Your task to perform on an android device: change alarm snooze length Image 0: 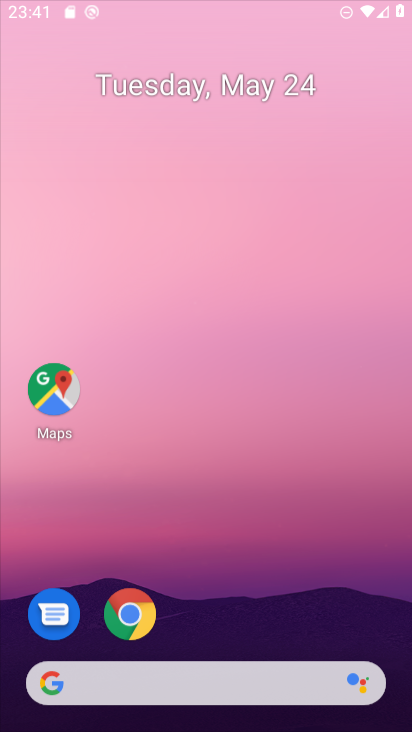
Step 0: press home button
Your task to perform on an android device: change alarm snooze length Image 1: 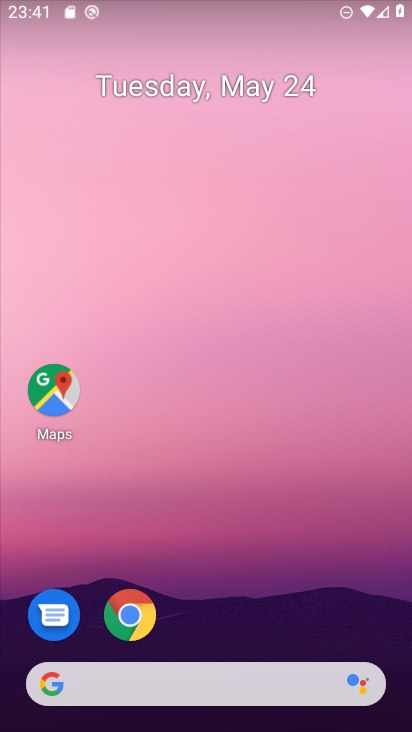
Step 1: drag from (257, 714) to (273, 123)
Your task to perform on an android device: change alarm snooze length Image 2: 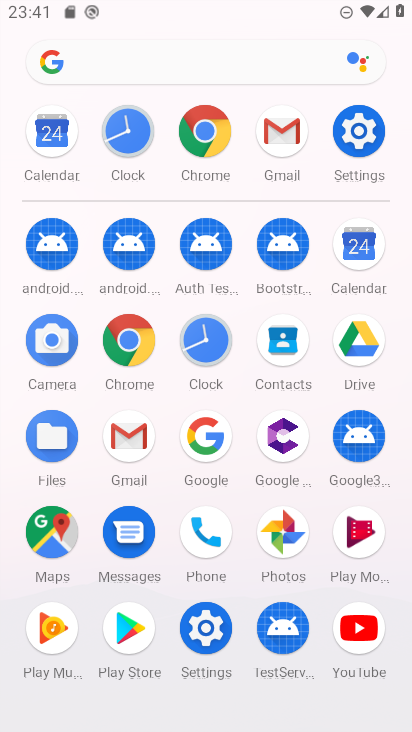
Step 2: click (207, 358)
Your task to perform on an android device: change alarm snooze length Image 3: 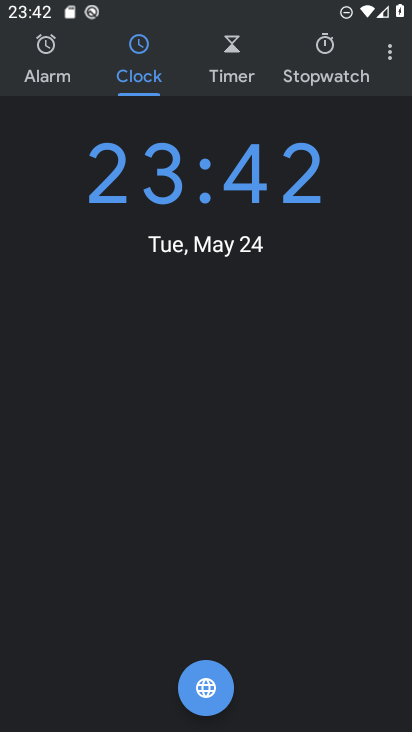
Step 3: click (384, 57)
Your task to perform on an android device: change alarm snooze length Image 4: 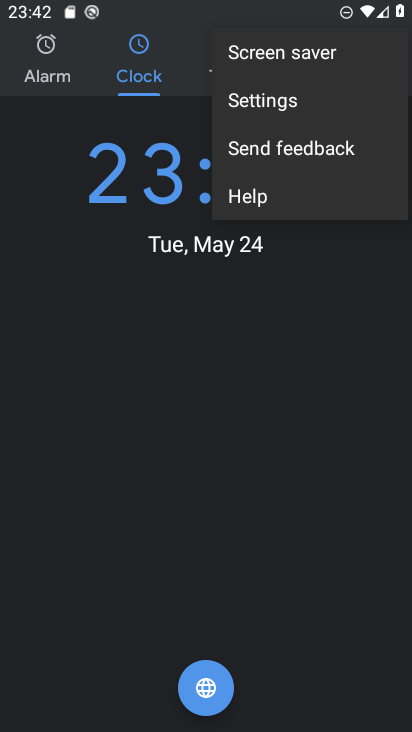
Step 4: click (270, 122)
Your task to perform on an android device: change alarm snooze length Image 5: 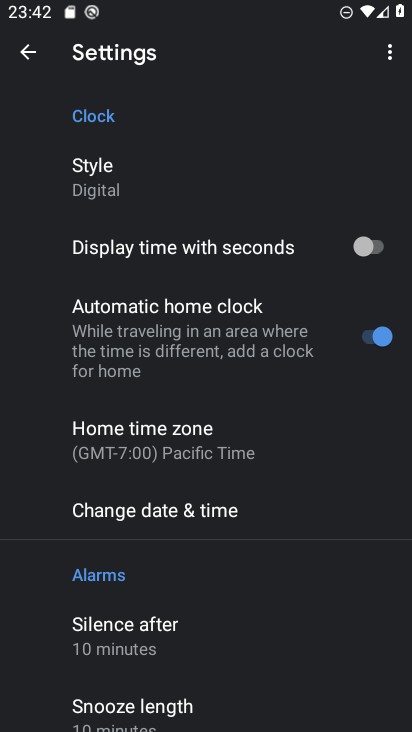
Step 5: click (170, 702)
Your task to perform on an android device: change alarm snooze length Image 6: 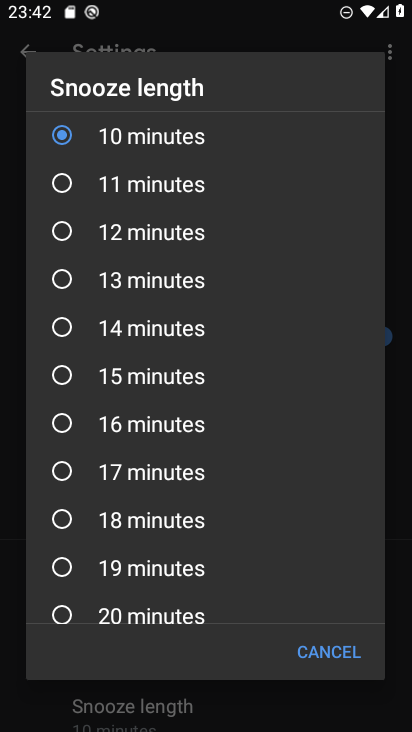
Step 6: click (154, 396)
Your task to perform on an android device: change alarm snooze length Image 7: 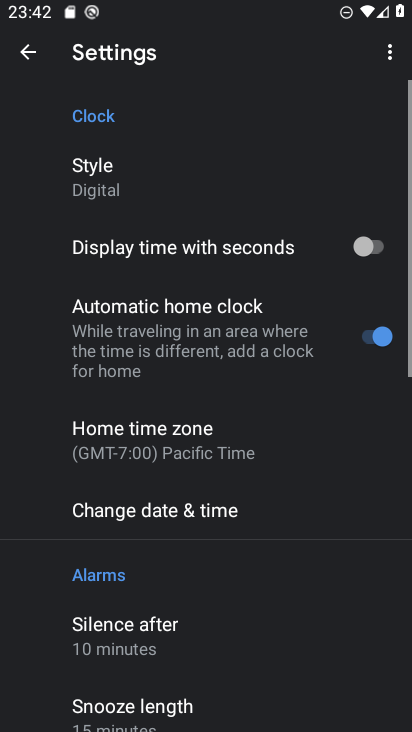
Step 7: task complete